Your task to perform on an android device: toggle show notifications on the lock screen Image 0: 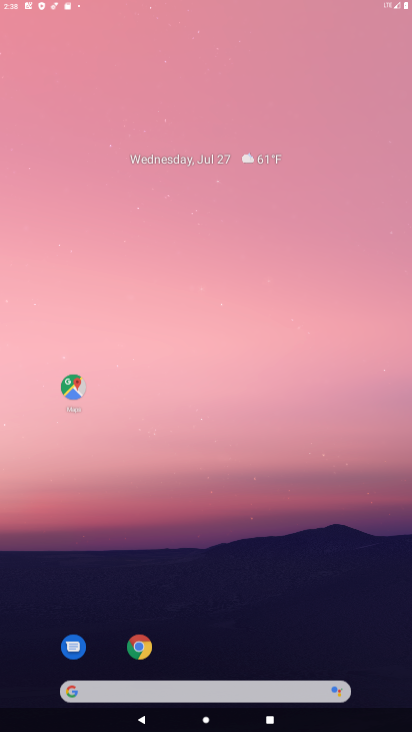
Step 0: click (197, 139)
Your task to perform on an android device: toggle show notifications on the lock screen Image 1: 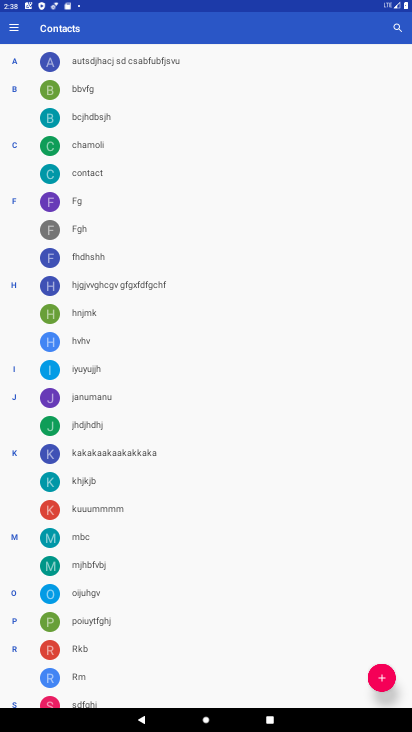
Step 1: press home button
Your task to perform on an android device: toggle show notifications on the lock screen Image 2: 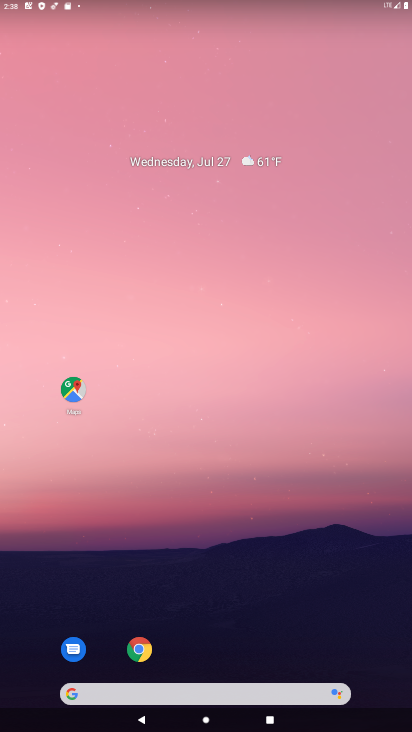
Step 2: drag from (185, 599) to (213, 31)
Your task to perform on an android device: toggle show notifications on the lock screen Image 3: 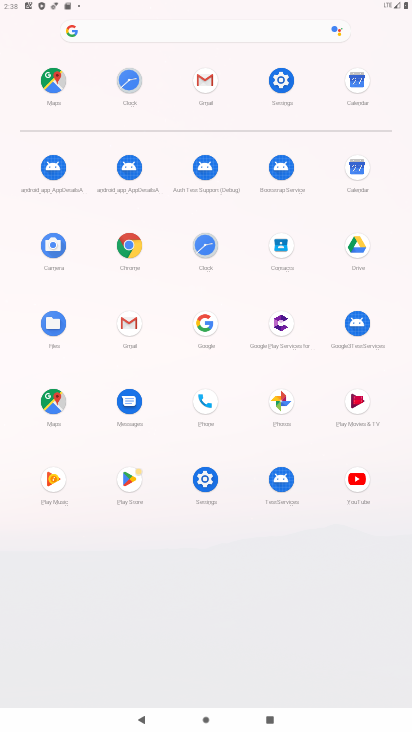
Step 3: click (201, 498)
Your task to perform on an android device: toggle show notifications on the lock screen Image 4: 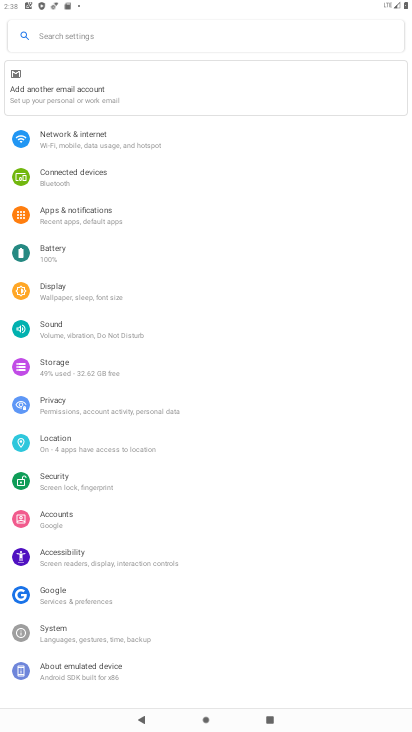
Step 4: click (50, 213)
Your task to perform on an android device: toggle show notifications on the lock screen Image 5: 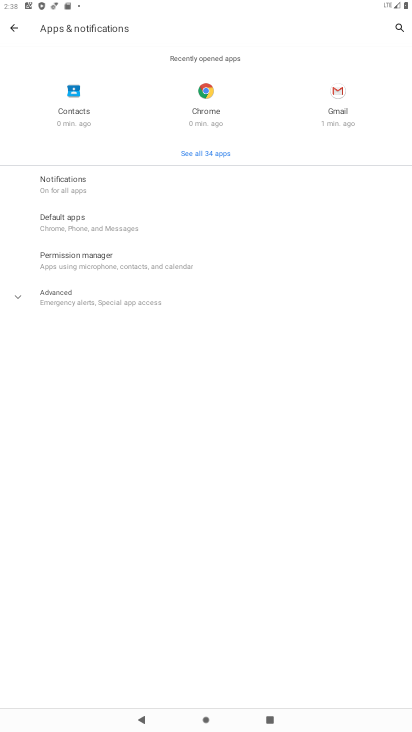
Step 5: click (51, 296)
Your task to perform on an android device: toggle show notifications on the lock screen Image 6: 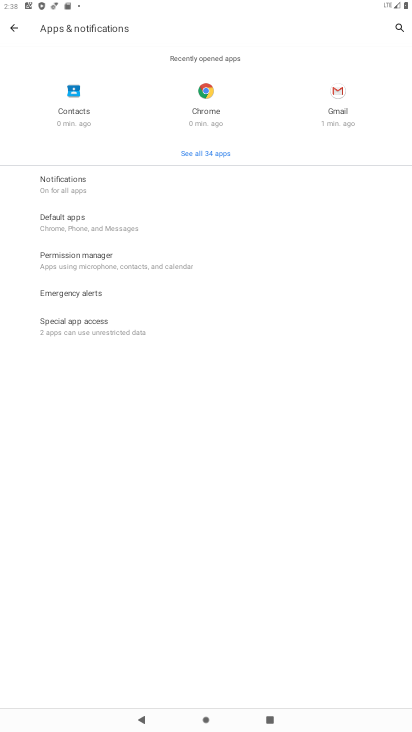
Step 6: click (68, 180)
Your task to perform on an android device: toggle show notifications on the lock screen Image 7: 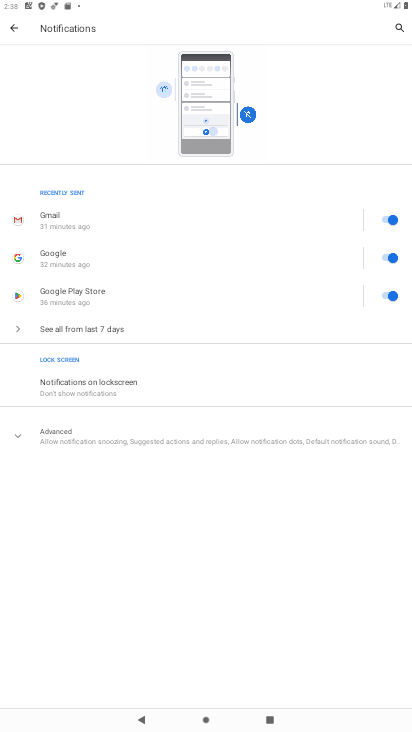
Step 7: click (93, 399)
Your task to perform on an android device: toggle show notifications on the lock screen Image 8: 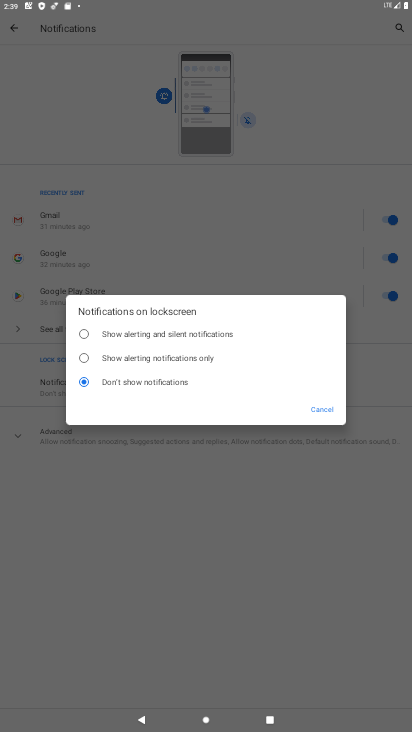
Step 8: click (82, 333)
Your task to perform on an android device: toggle show notifications on the lock screen Image 9: 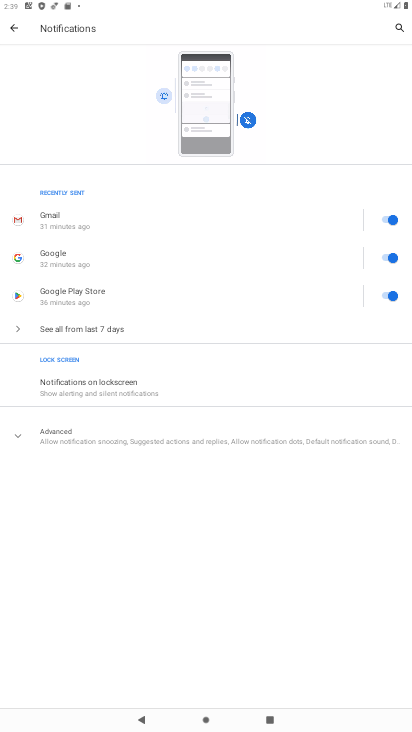
Step 9: task complete